Your task to perform on an android device: Go to Amazon Image 0: 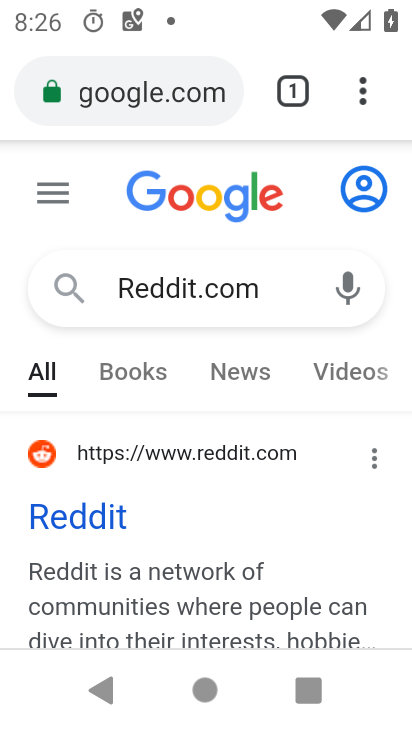
Step 0: press home button
Your task to perform on an android device: Go to Amazon Image 1: 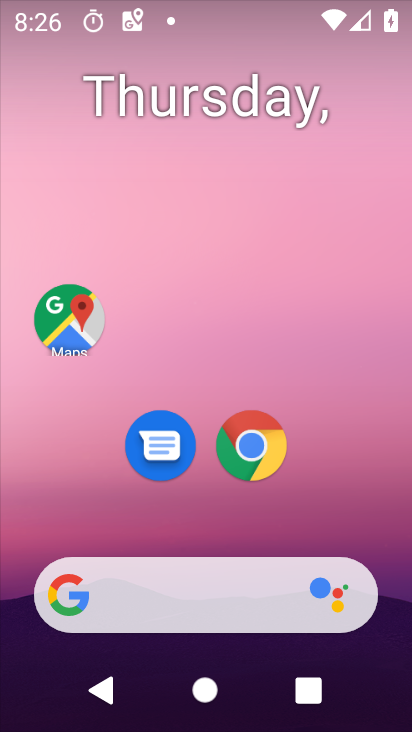
Step 1: click (256, 446)
Your task to perform on an android device: Go to Amazon Image 2: 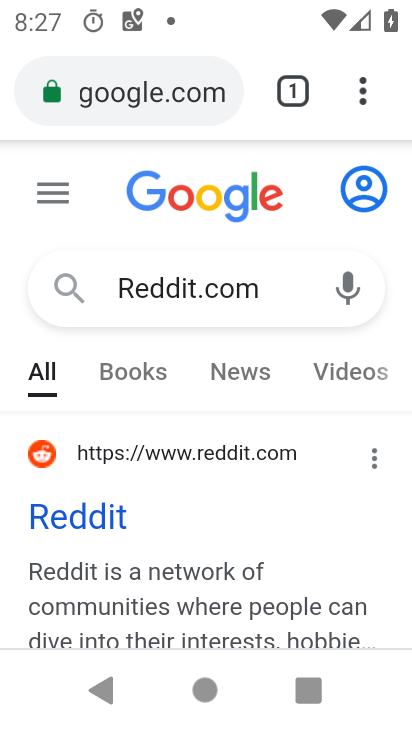
Step 2: click (152, 194)
Your task to perform on an android device: Go to Amazon Image 3: 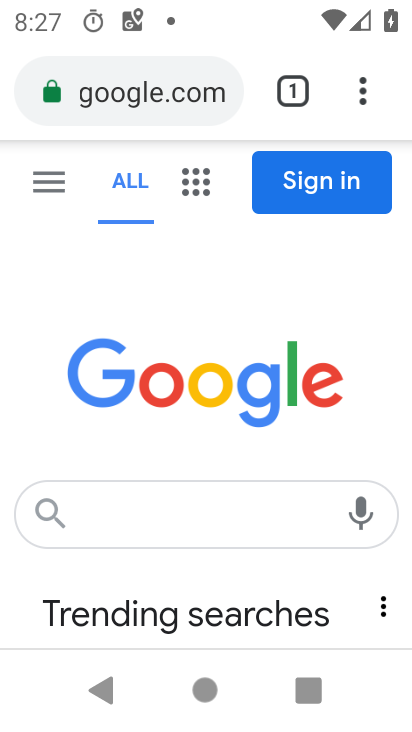
Step 3: drag from (94, 596) to (156, 182)
Your task to perform on an android device: Go to Amazon Image 4: 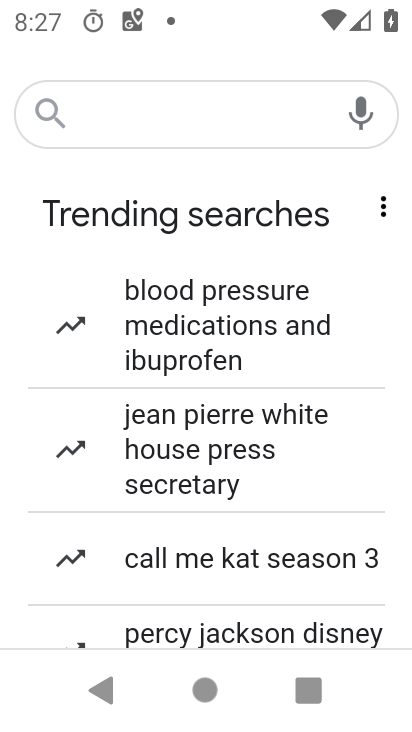
Step 4: press home button
Your task to perform on an android device: Go to Amazon Image 5: 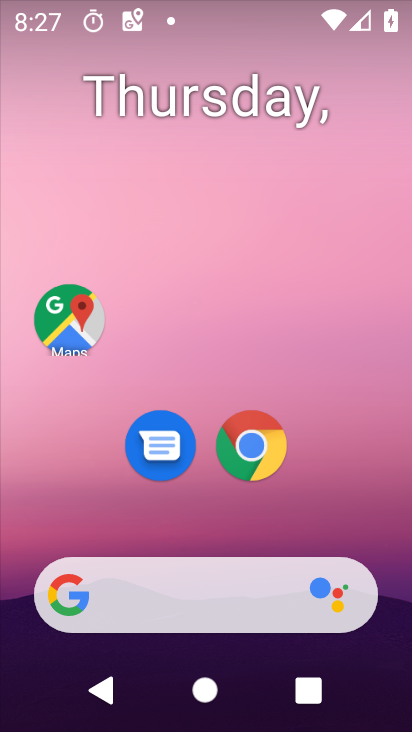
Step 5: click (248, 445)
Your task to perform on an android device: Go to Amazon Image 6: 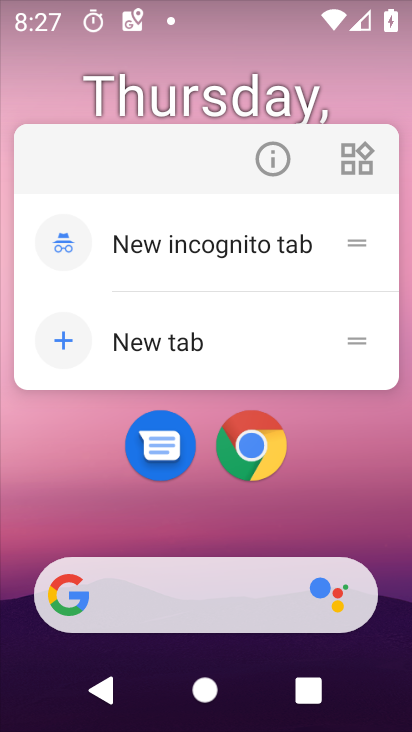
Step 6: click (277, 162)
Your task to perform on an android device: Go to Amazon Image 7: 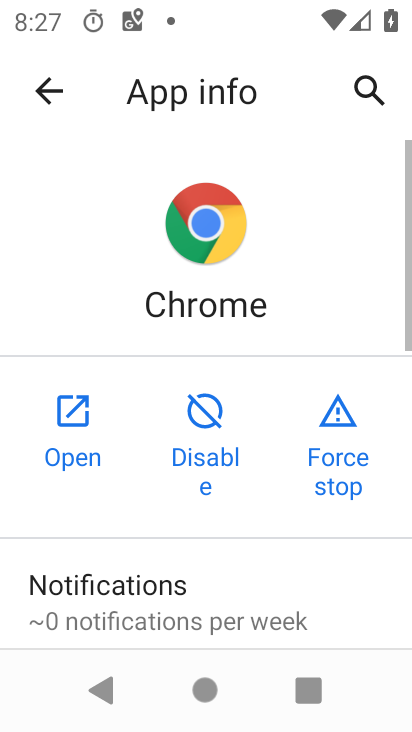
Step 7: click (74, 416)
Your task to perform on an android device: Go to Amazon Image 8: 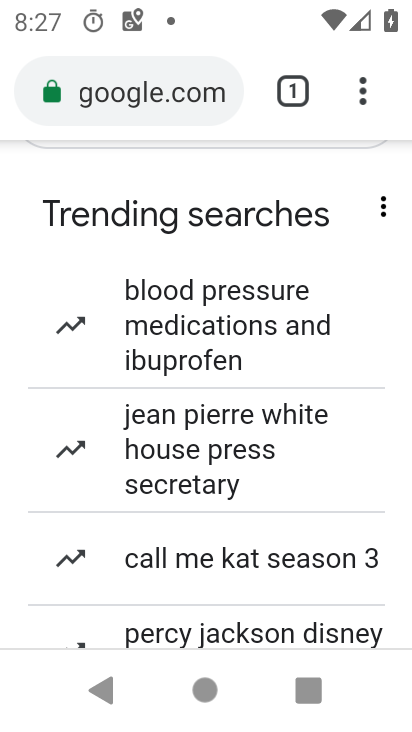
Step 8: press back button
Your task to perform on an android device: Go to Amazon Image 9: 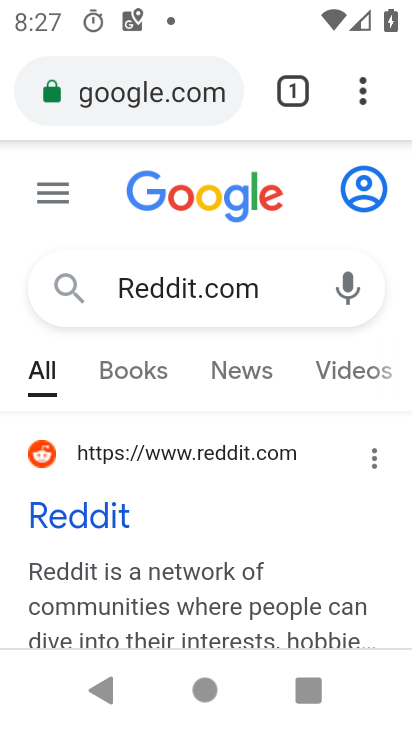
Step 9: press back button
Your task to perform on an android device: Go to Amazon Image 10: 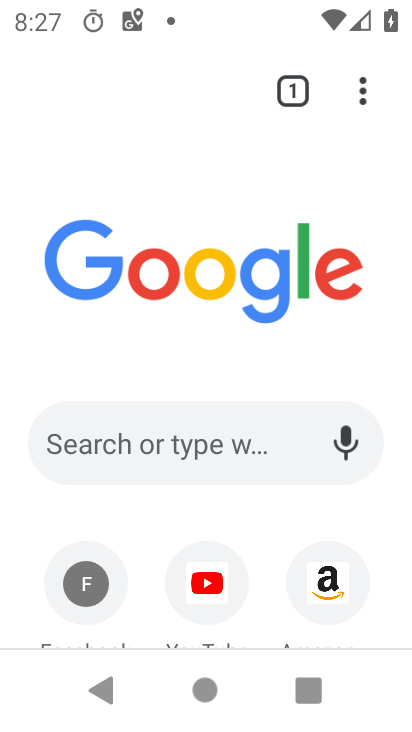
Step 10: click (314, 574)
Your task to perform on an android device: Go to Amazon Image 11: 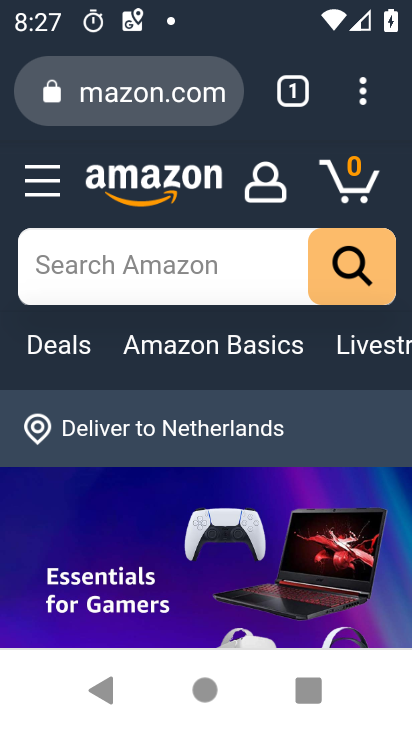
Step 11: task complete